Your task to perform on an android device: Open my contact list Image 0: 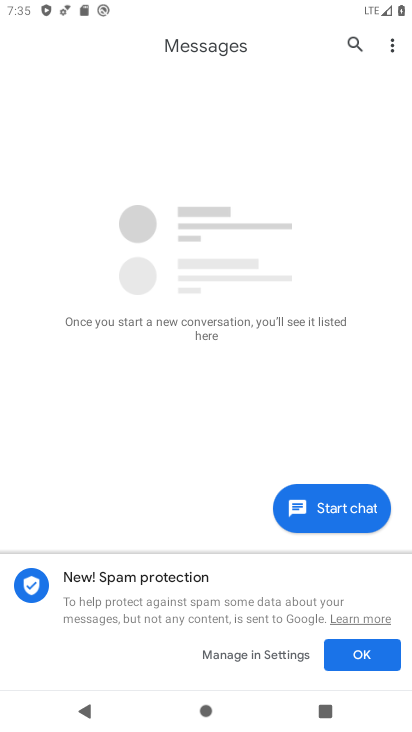
Step 0: press home button
Your task to perform on an android device: Open my contact list Image 1: 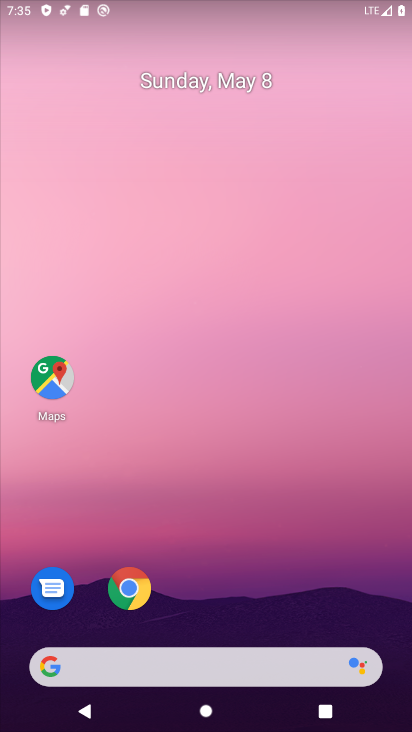
Step 1: drag from (157, 668) to (351, 201)
Your task to perform on an android device: Open my contact list Image 2: 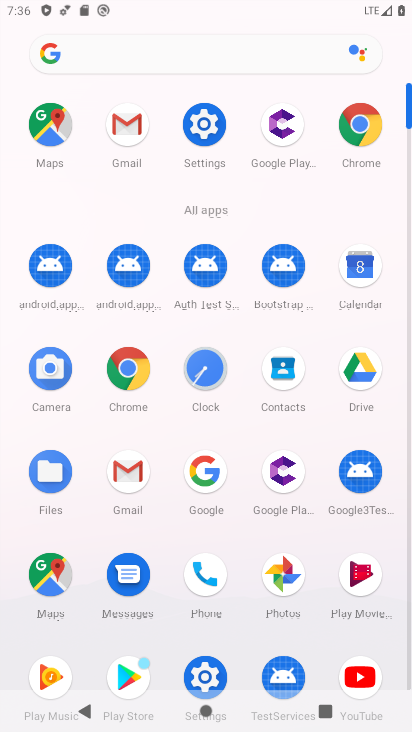
Step 2: click (283, 381)
Your task to perform on an android device: Open my contact list Image 3: 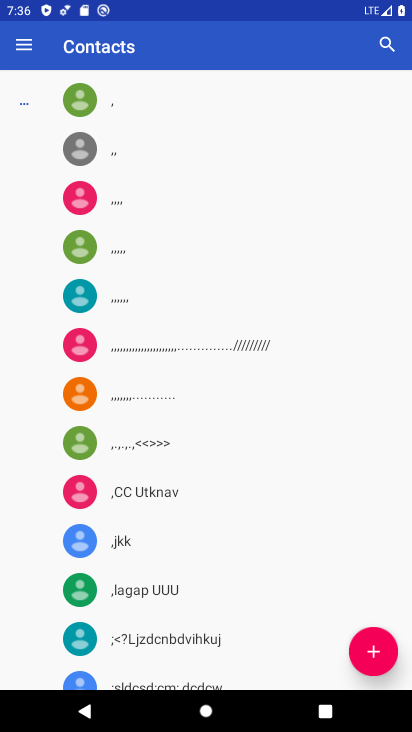
Step 3: task complete